Your task to perform on an android device: toggle data saver in the chrome app Image 0: 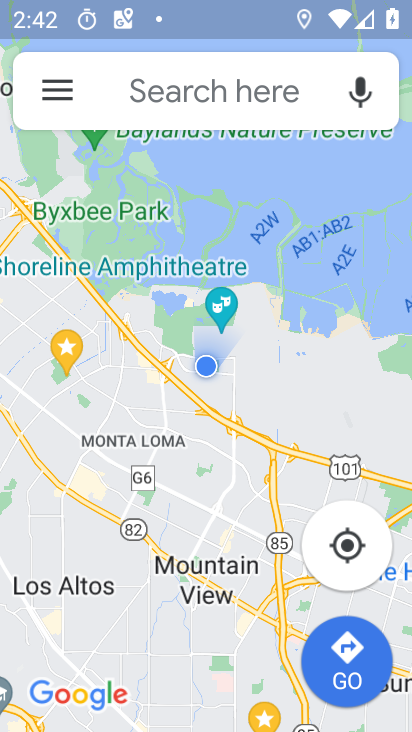
Step 0: press home button
Your task to perform on an android device: toggle data saver in the chrome app Image 1: 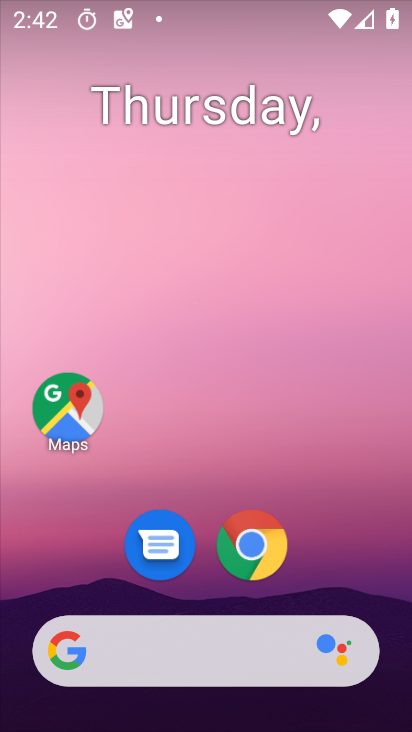
Step 1: click (248, 540)
Your task to perform on an android device: toggle data saver in the chrome app Image 2: 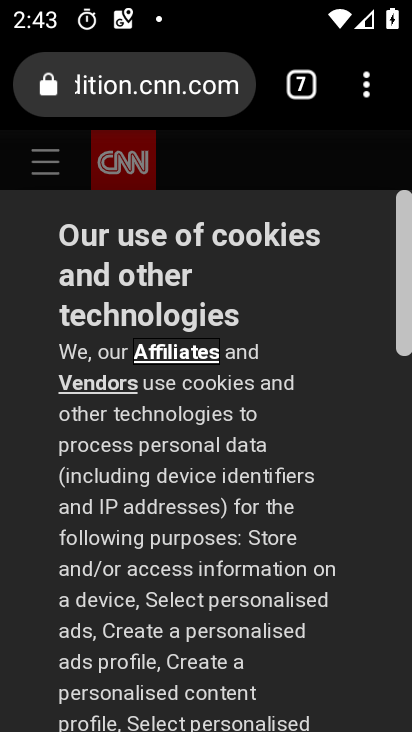
Step 2: click (366, 95)
Your task to perform on an android device: toggle data saver in the chrome app Image 3: 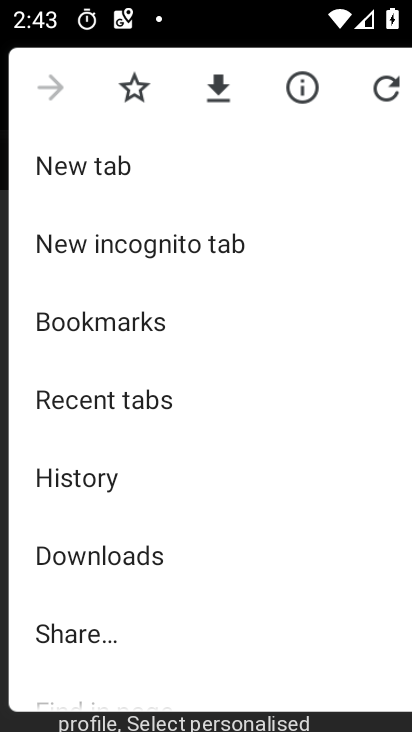
Step 3: drag from (100, 293) to (102, 251)
Your task to perform on an android device: toggle data saver in the chrome app Image 4: 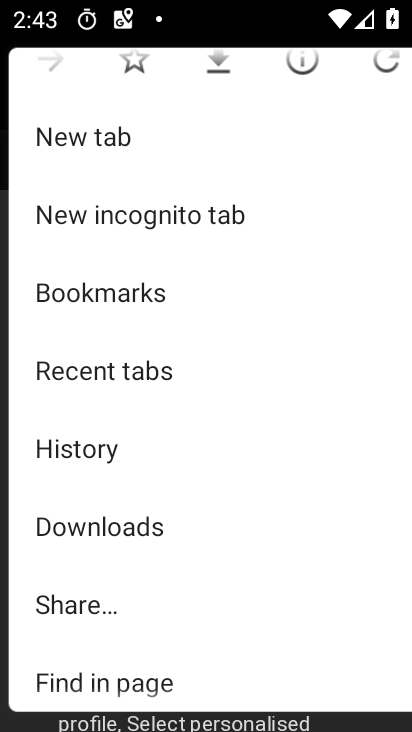
Step 4: drag from (90, 680) to (81, 251)
Your task to perform on an android device: toggle data saver in the chrome app Image 5: 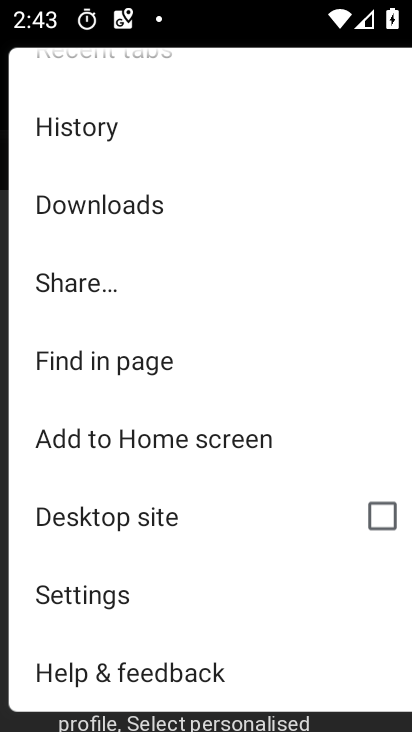
Step 5: click (81, 596)
Your task to perform on an android device: toggle data saver in the chrome app Image 6: 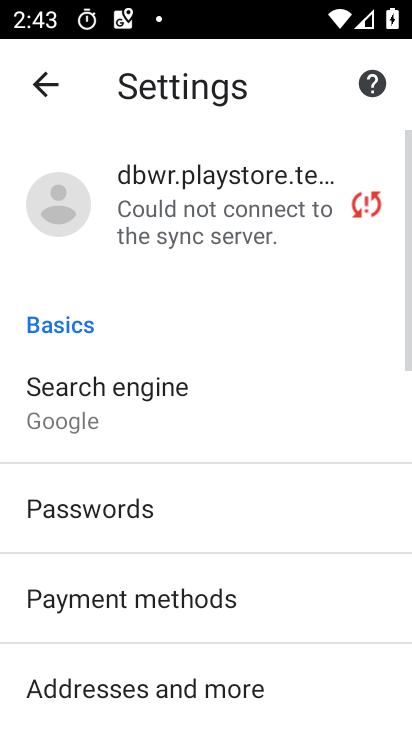
Step 6: drag from (137, 676) to (140, 243)
Your task to perform on an android device: toggle data saver in the chrome app Image 7: 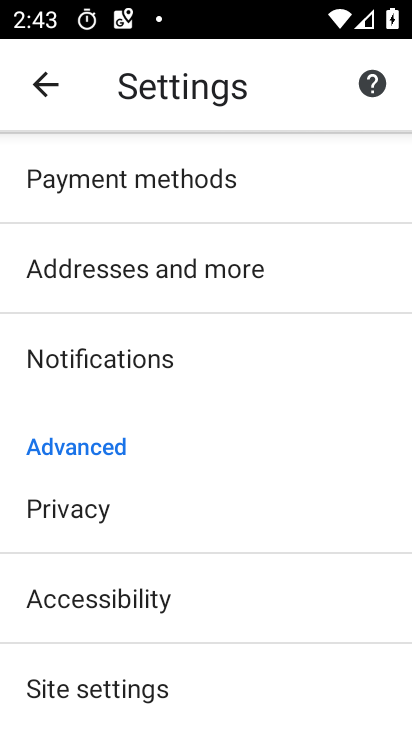
Step 7: drag from (116, 669) to (125, 282)
Your task to perform on an android device: toggle data saver in the chrome app Image 8: 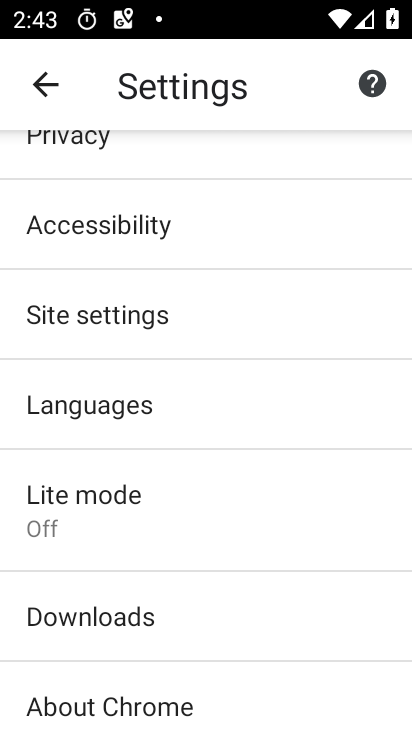
Step 8: click (97, 498)
Your task to perform on an android device: toggle data saver in the chrome app Image 9: 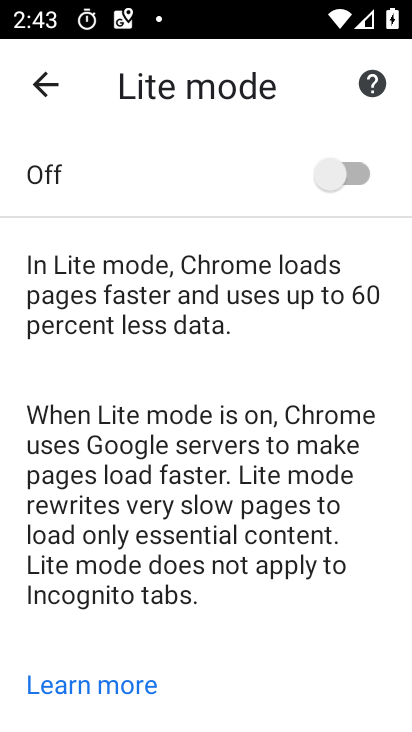
Step 9: click (349, 172)
Your task to perform on an android device: toggle data saver in the chrome app Image 10: 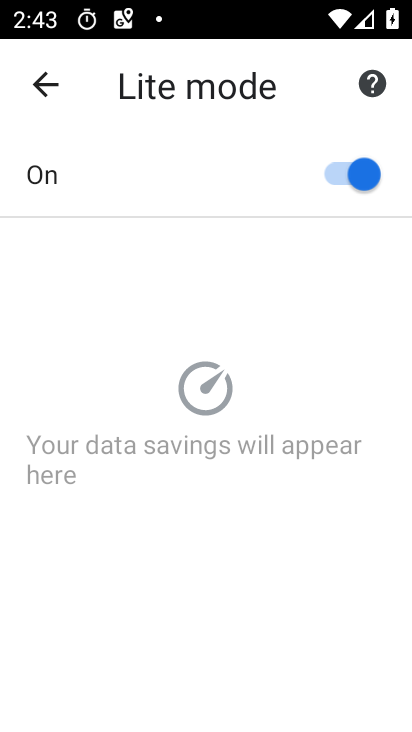
Step 10: task complete